Your task to perform on an android device: empty trash in the gmail app Image 0: 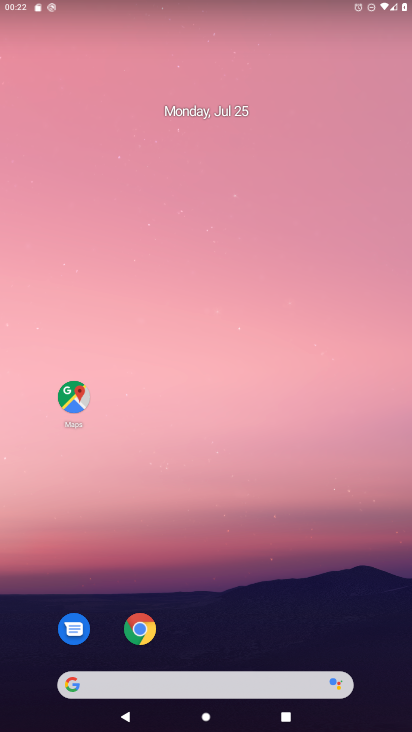
Step 0: drag from (192, 669) to (115, 149)
Your task to perform on an android device: empty trash in the gmail app Image 1: 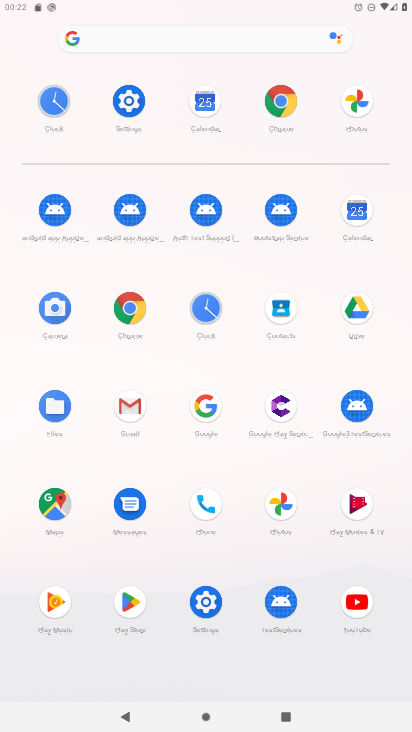
Step 1: click (122, 399)
Your task to perform on an android device: empty trash in the gmail app Image 2: 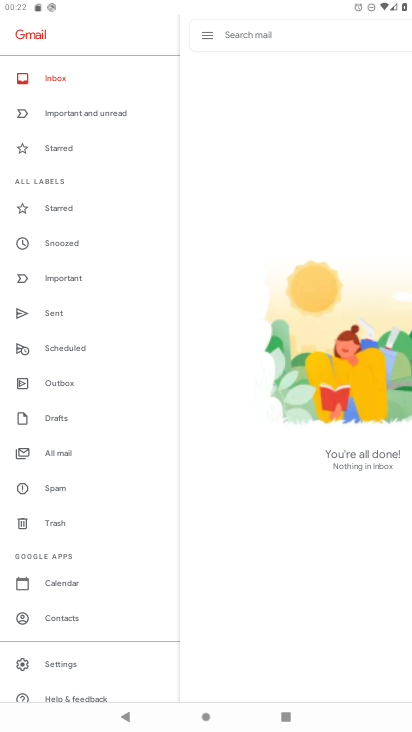
Step 2: click (46, 524)
Your task to perform on an android device: empty trash in the gmail app Image 3: 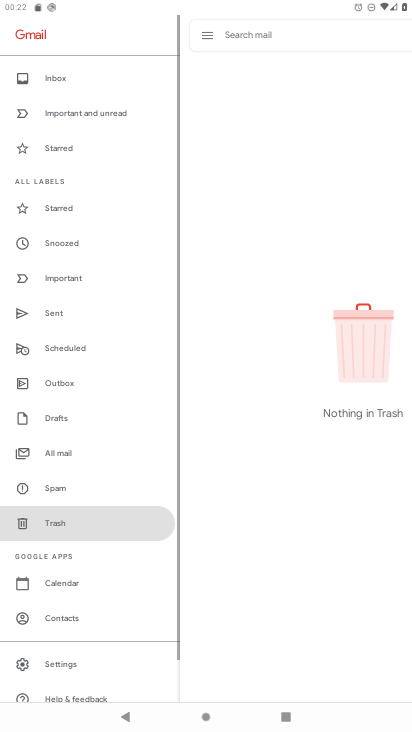
Step 3: click (228, 545)
Your task to perform on an android device: empty trash in the gmail app Image 4: 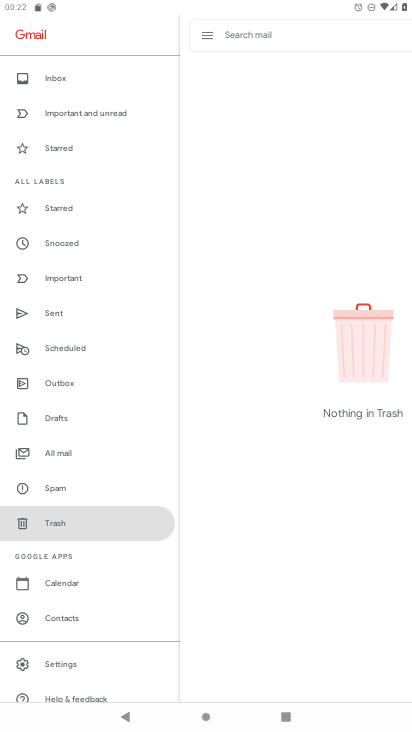
Step 4: task complete